Your task to perform on an android device: Turn off the flashlight Image 0: 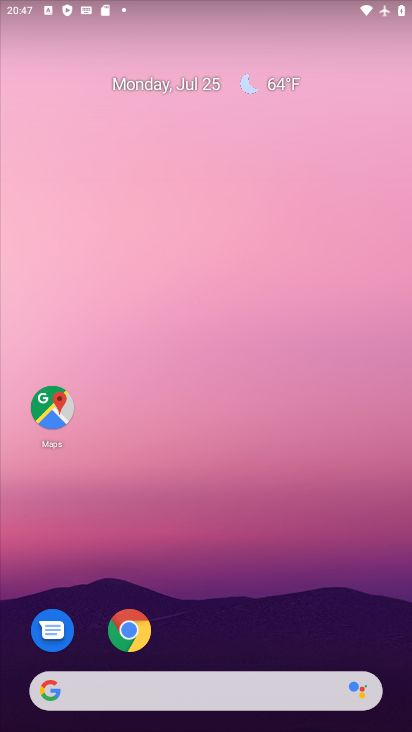
Step 0: drag from (219, 11) to (204, 398)
Your task to perform on an android device: Turn off the flashlight Image 1: 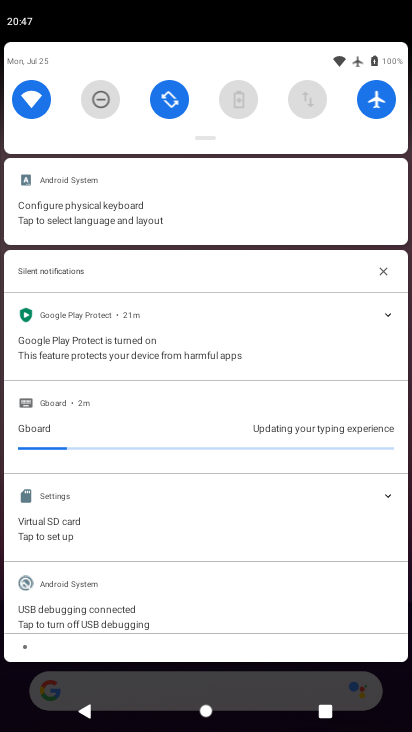
Step 1: drag from (204, 142) to (214, 487)
Your task to perform on an android device: Turn off the flashlight Image 2: 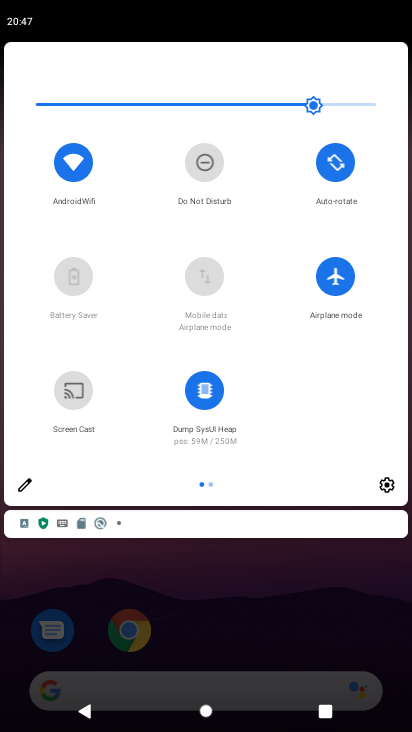
Step 2: click (22, 482)
Your task to perform on an android device: Turn off the flashlight Image 3: 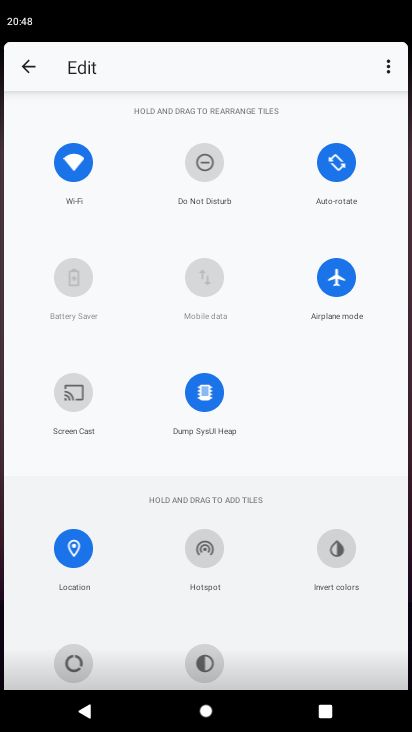
Step 3: task complete